Your task to perform on an android device: set the stopwatch Image 0: 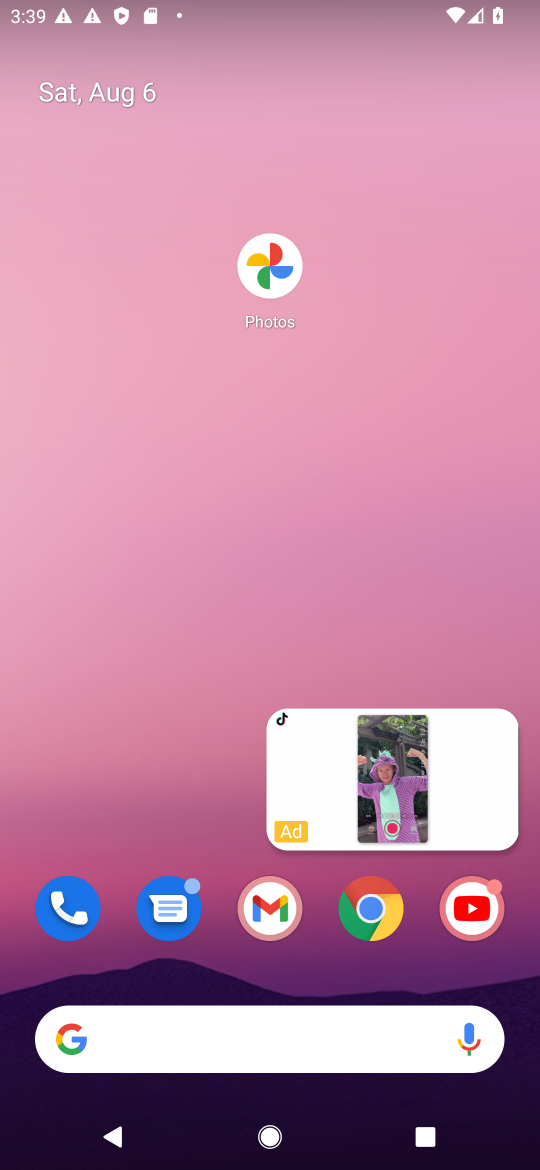
Step 0: drag from (190, 737) to (369, 23)
Your task to perform on an android device: set the stopwatch Image 1: 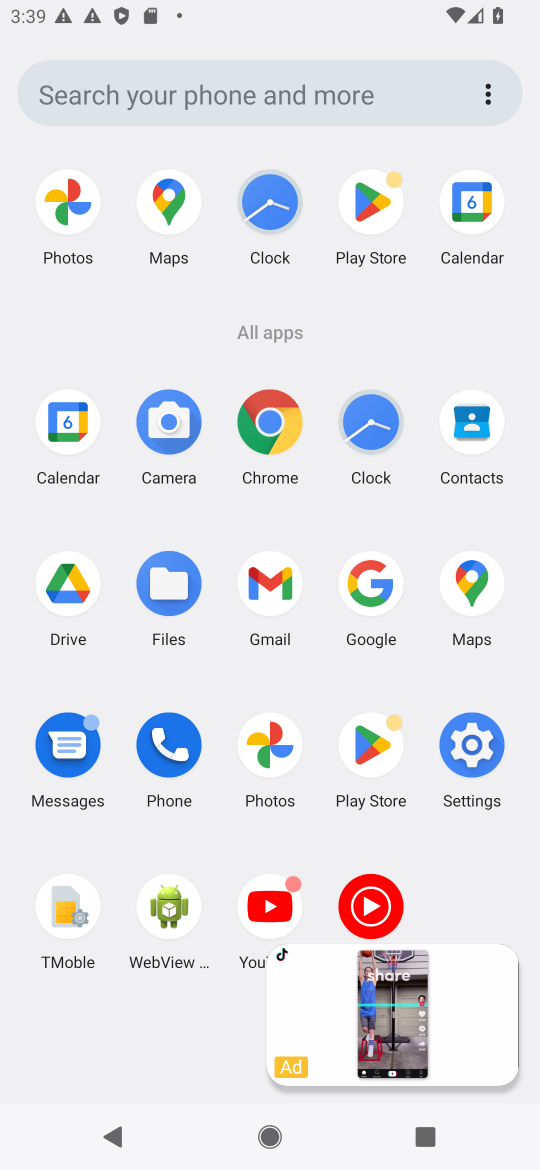
Step 1: click (379, 460)
Your task to perform on an android device: set the stopwatch Image 2: 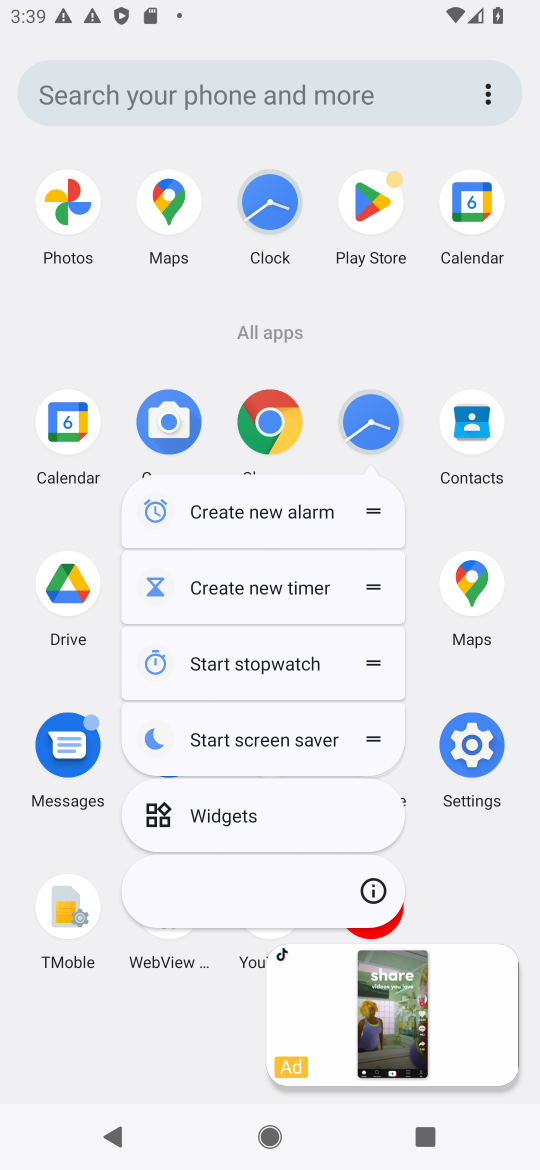
Step 2: click (379, 400)
Your task to perform on an android device: set the stopwatch Image 3: 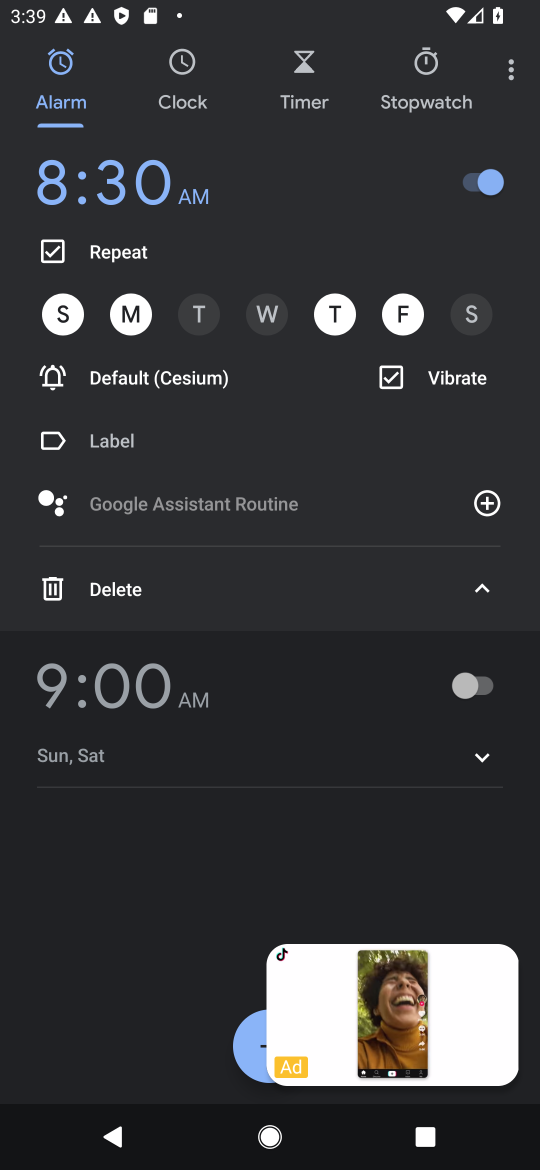
Step 3: click (424, 71)
Your task to perform on an android device: set the stopwatch Image 4: 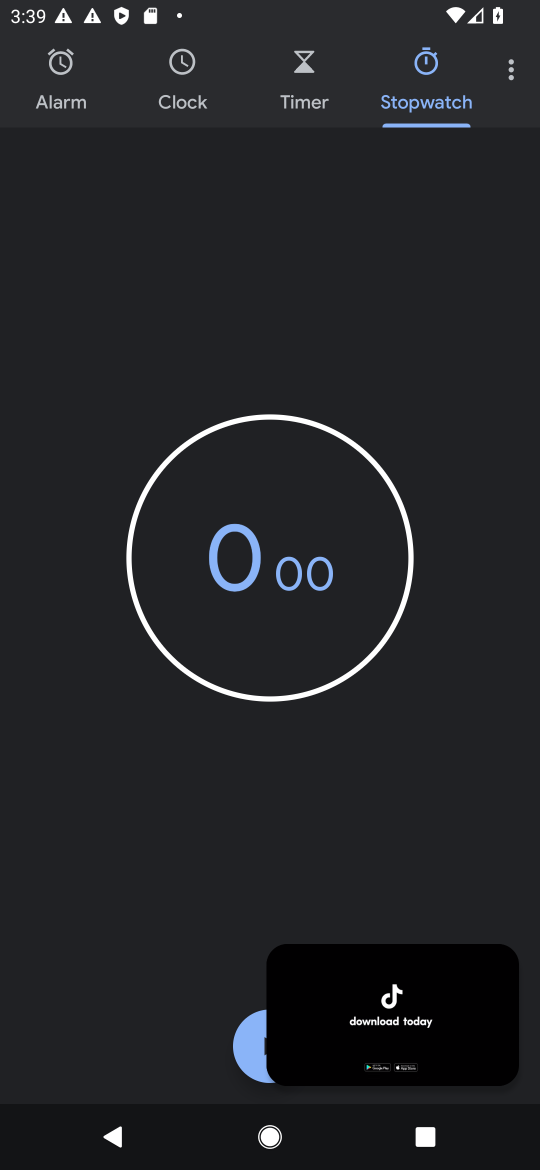
Step 4: click (237, 1045)
Your task to perform on an android device: set the stopwatch Image 5: 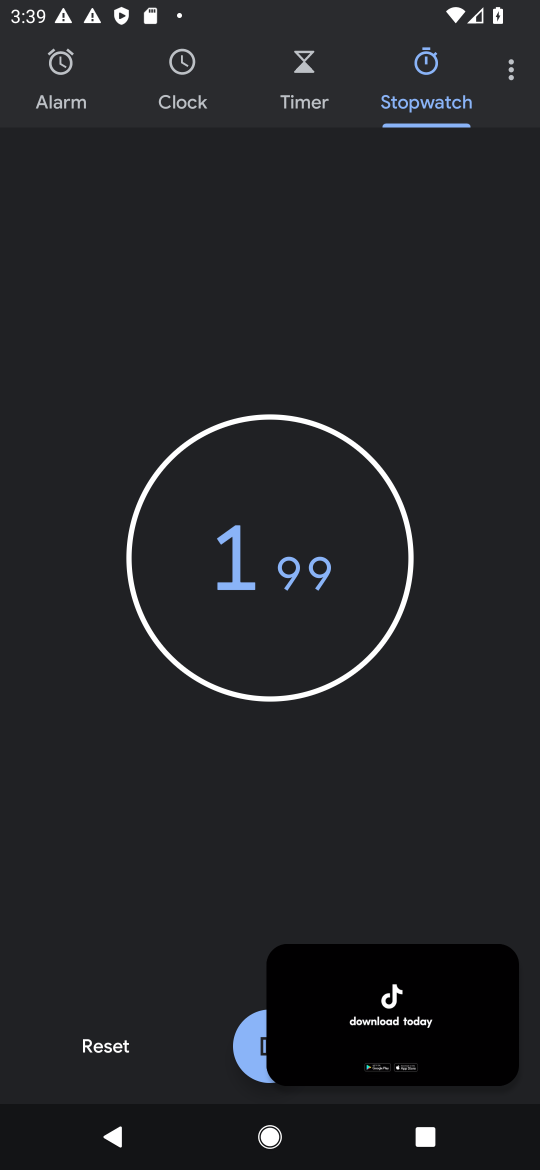
Step 5: task complete